Your task to perform on an android device: See recent photos Image 0: 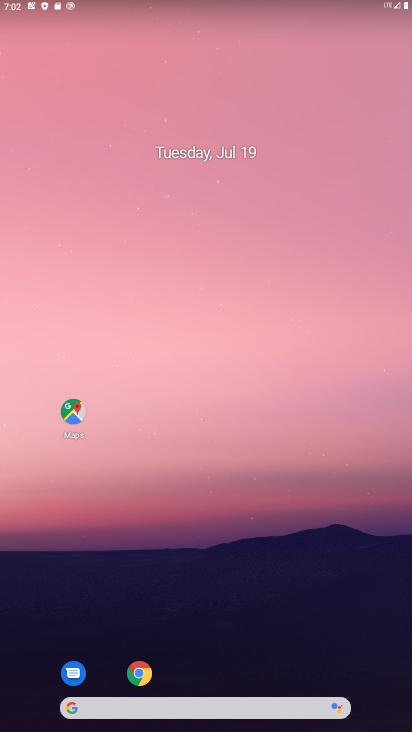
Step 0: drag from (359, 549) to (280, 1)
Your task to perform on an android device: See recent photos Image 1: 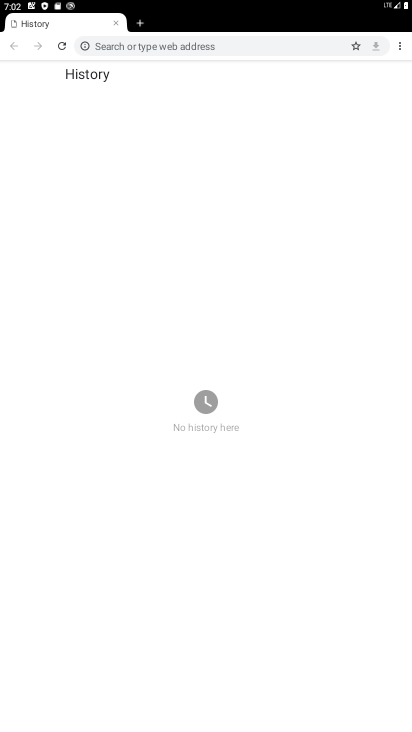
Step 1: press home button
Your task to perform on an android device: See recent photos Image 2: 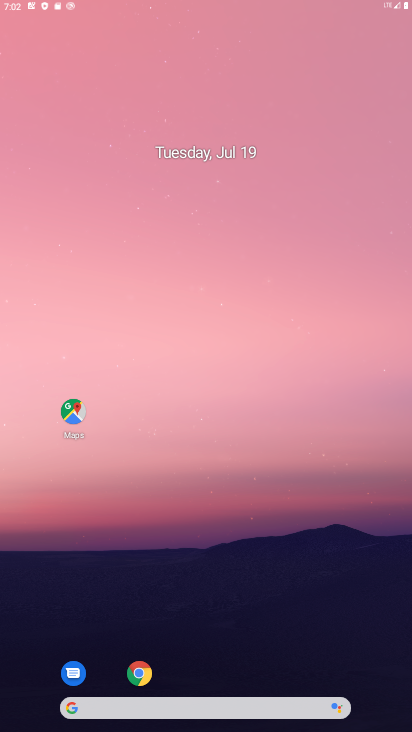
Step 2: drag from (388, 708) to (311, 11)
Your task to perform on an android device: See recent photos Image 3: 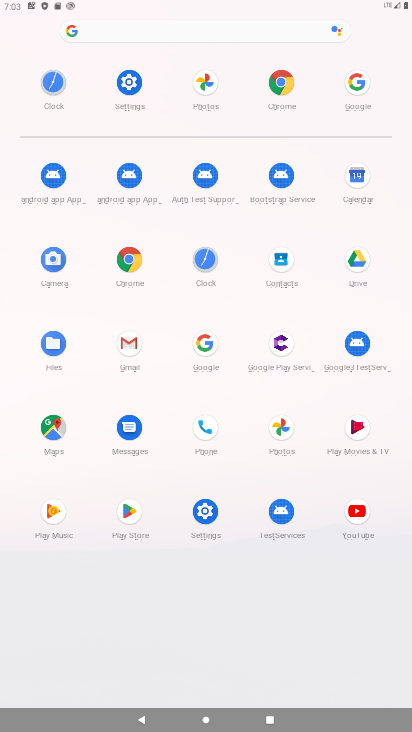
Step 3: click (284, 423)
Your task to perform on an android device: See recent photos Image 4: 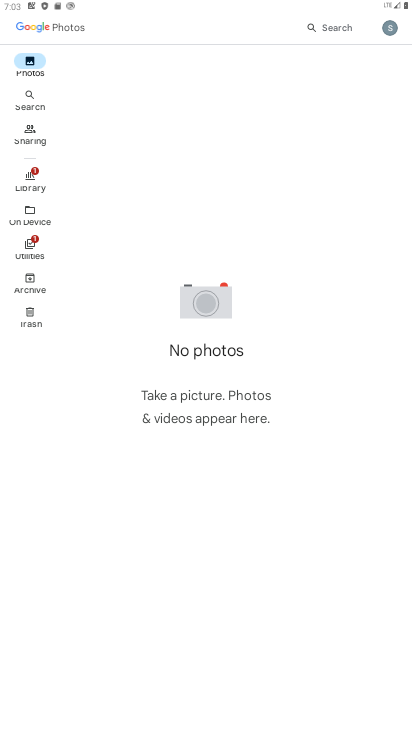
Step 4: task complete